Your task to perform on an android device: Open display settings Image 0: 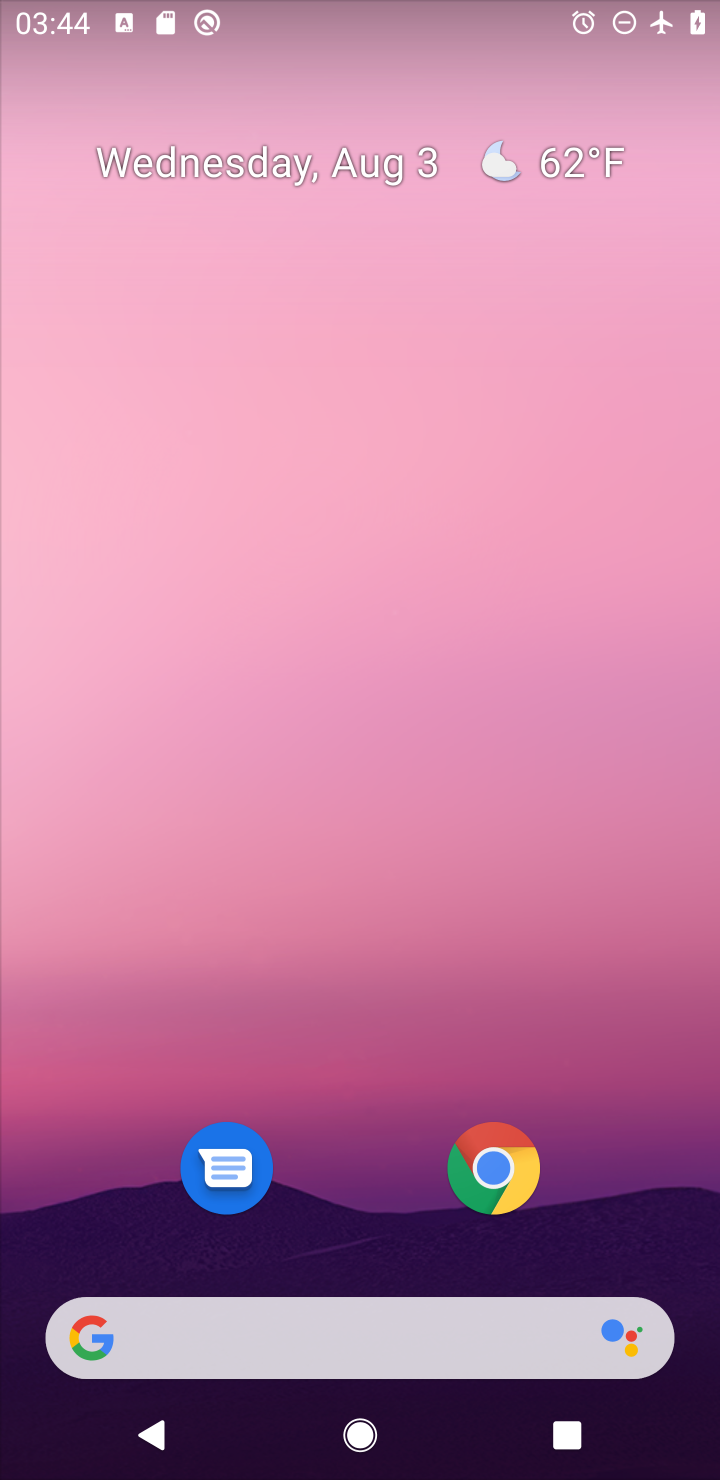
Step 0: drag from (676, 1260) to (591, 242)
Your task to perform on an android device: Open display settings Image 1: 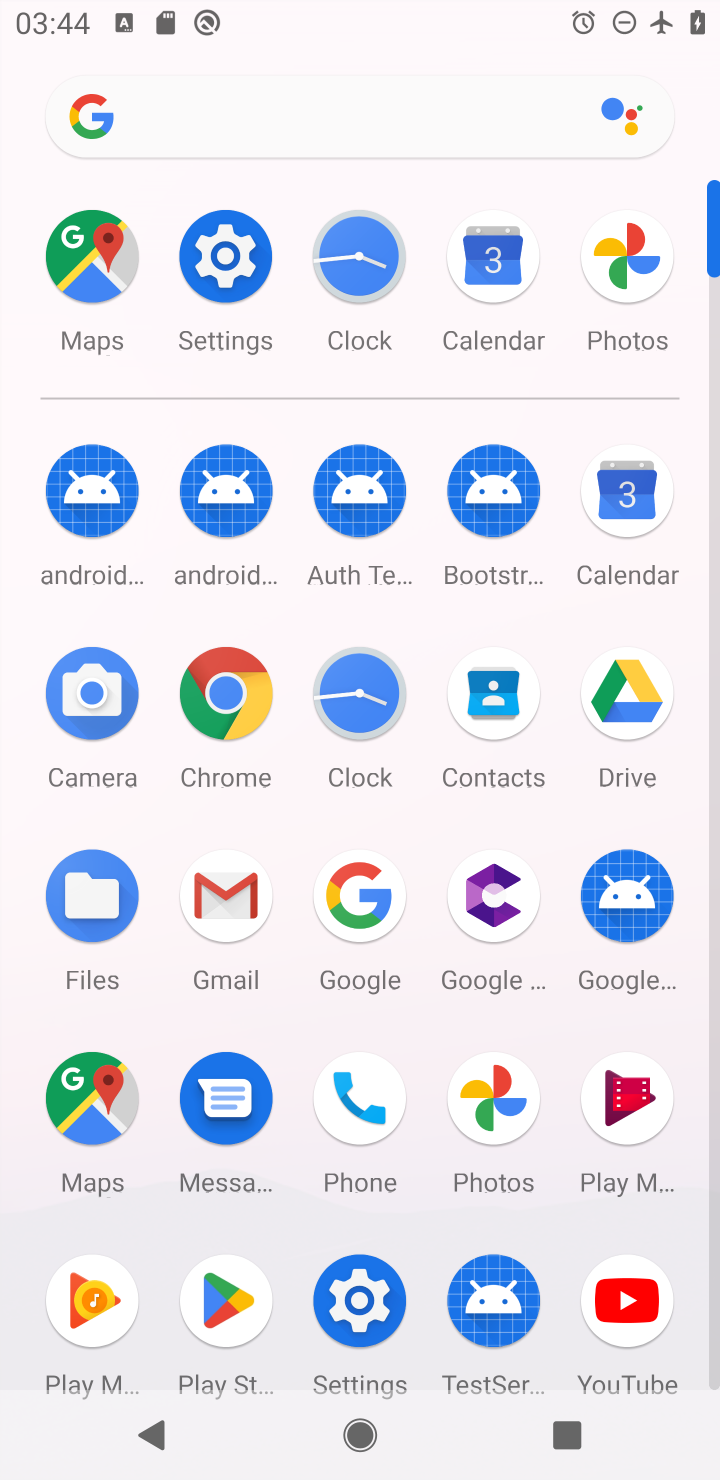
Step 1: click (361, 1299)
Your task to perform on an android device: Open display settings Image 2: 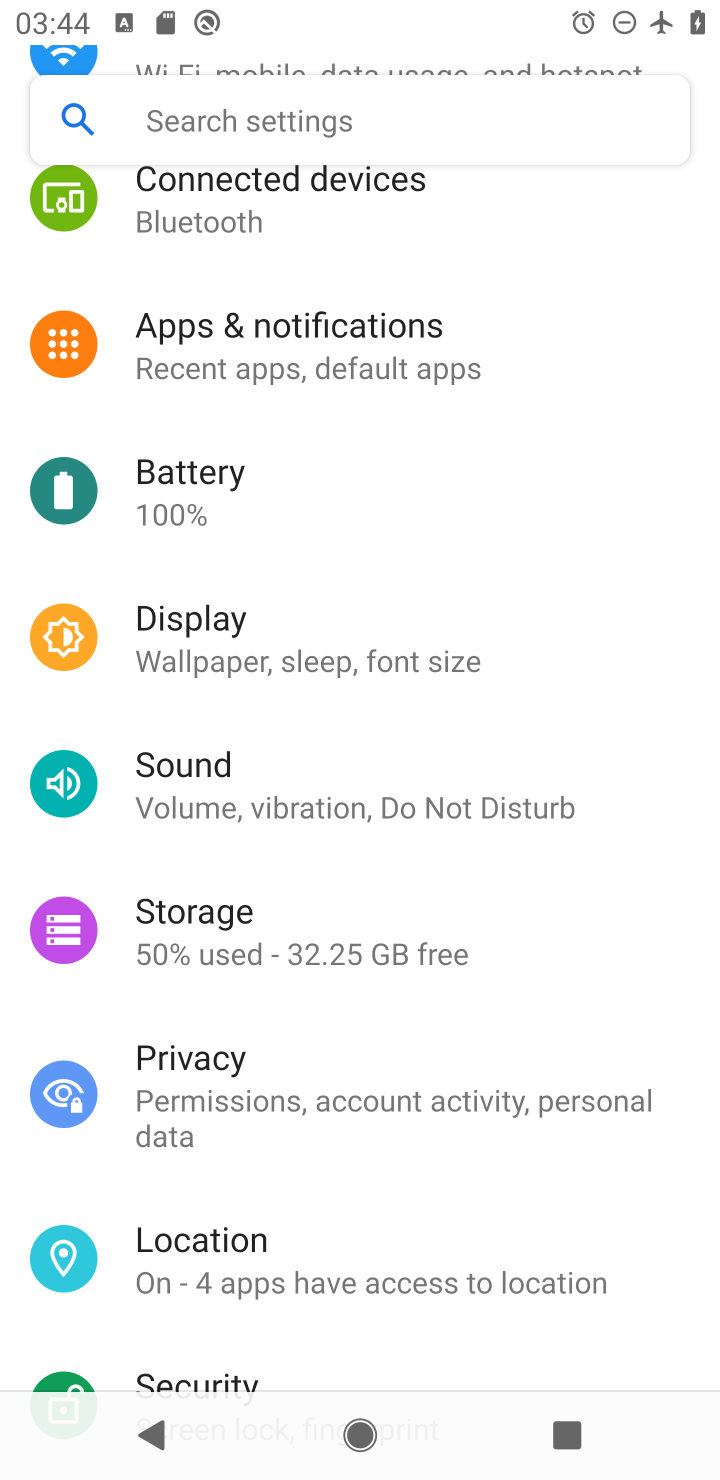
Step 2: click (204, 623)
Your task to perform on an android device: Open display settings Image 3: 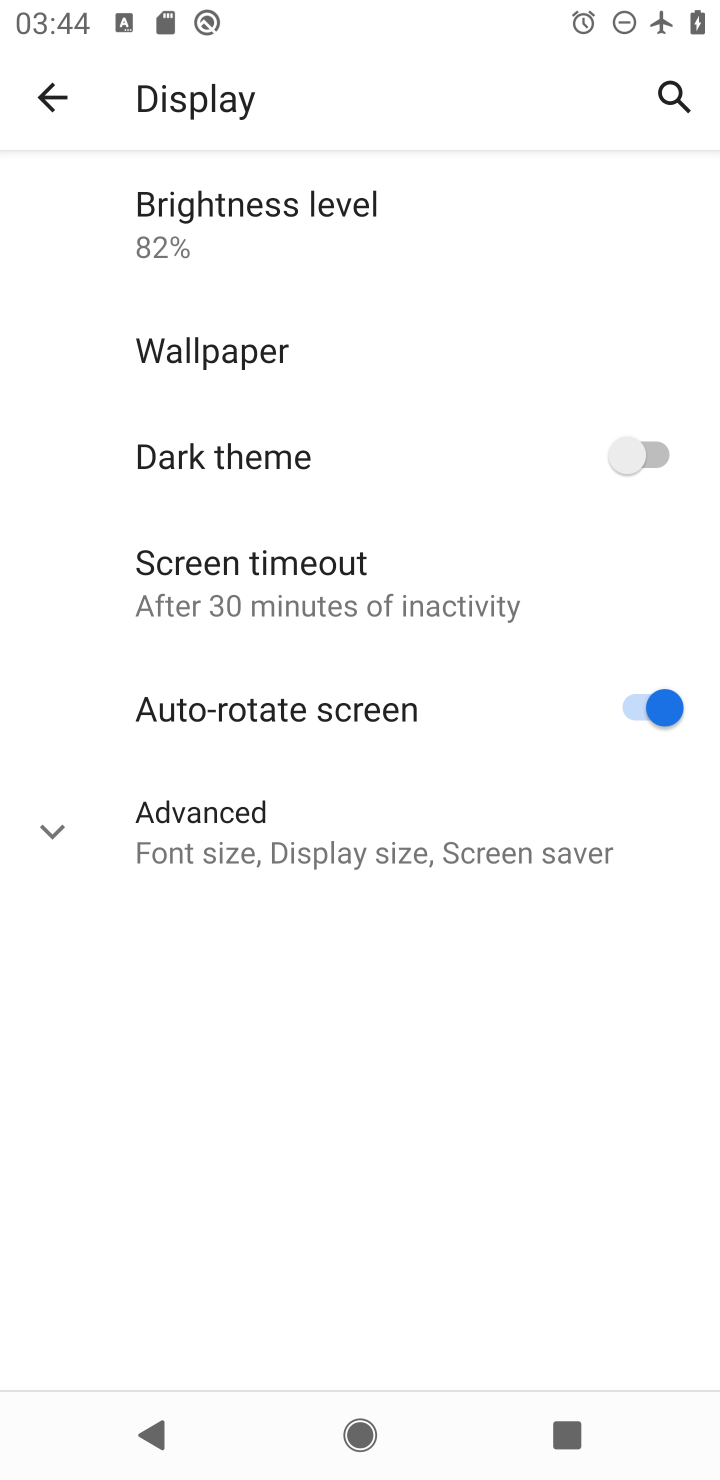
Step 3: click (45, 844)
Your task to perform on an android device: Open display settings Image 4: 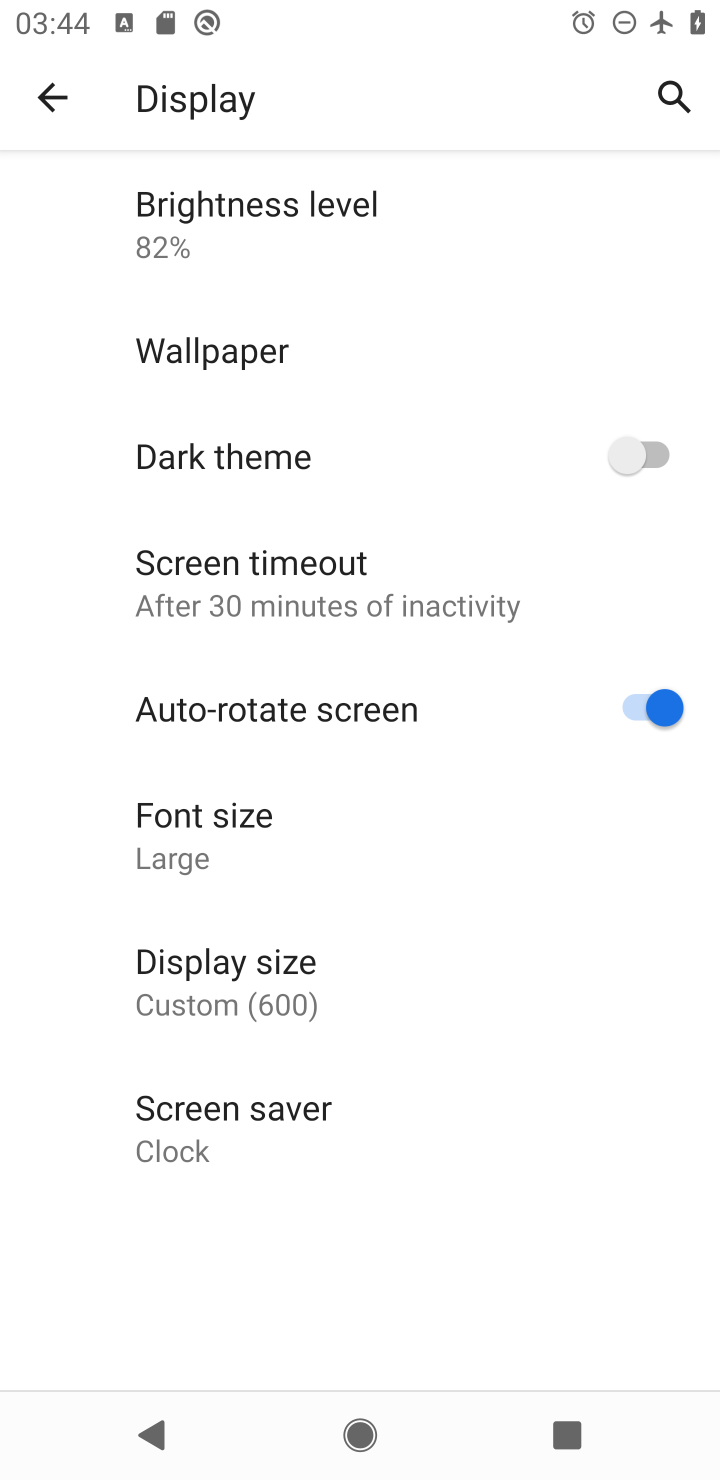
Step 4: task complete